Your task to perform on an android device: Go to wifi settings Image 0: 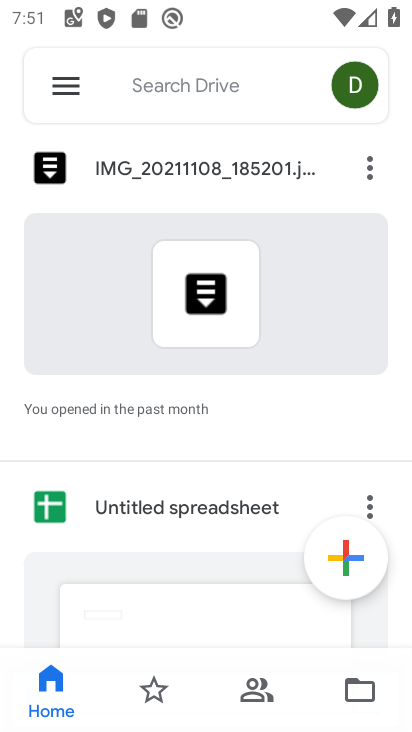
Step 0: press home button
Your task to perform on an android device: Go to wifi settings Image 1: 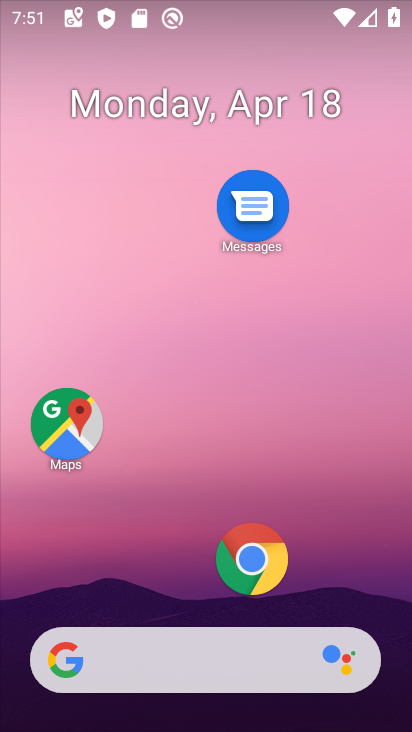
Step 1: drag from (175, 521) to (258, 84)
Your task to perform on an android device: Go to wifi settings Image 2: 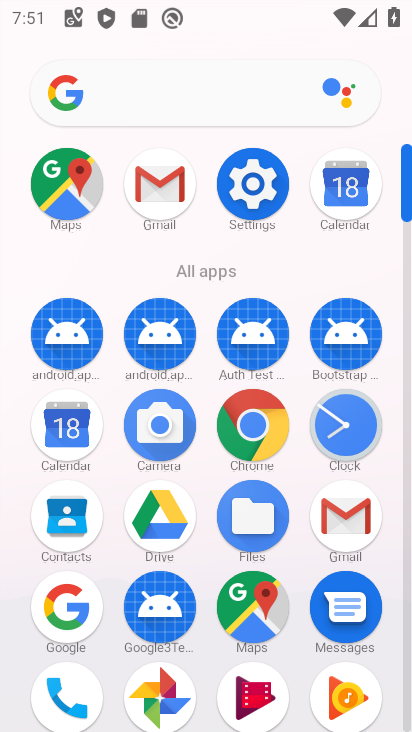
Step 2: click (247, 188)
Your task to perform on an android device: Go to wifi settings Image 3: 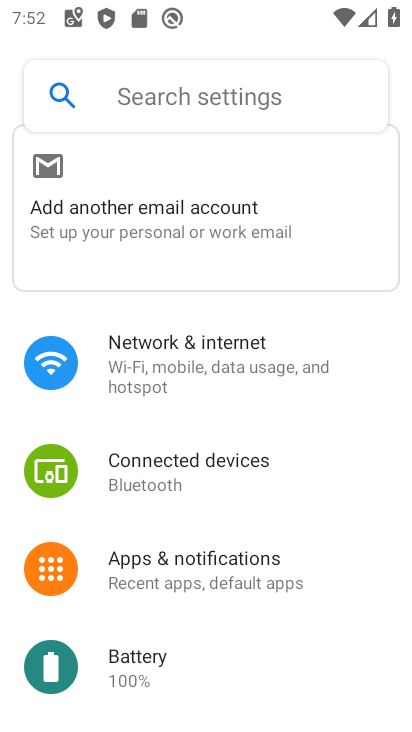
Step 3: click (184, 353)
Your task to perform on an android device: Go to wifi settings Image 4: 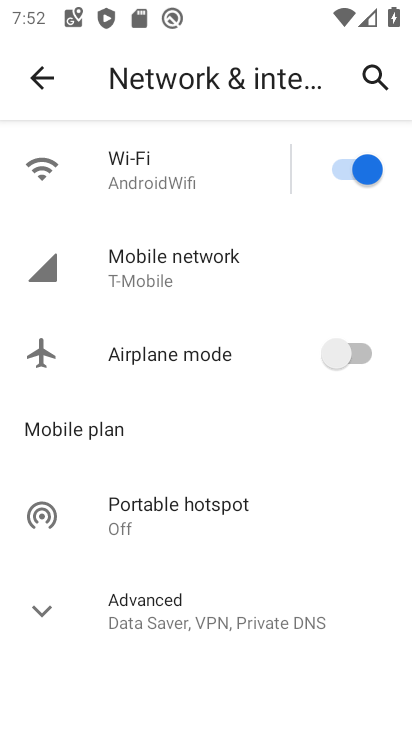
Step 4: click (165, 177)
Your task to perform on an android device: Go to wifi settings Image 5: 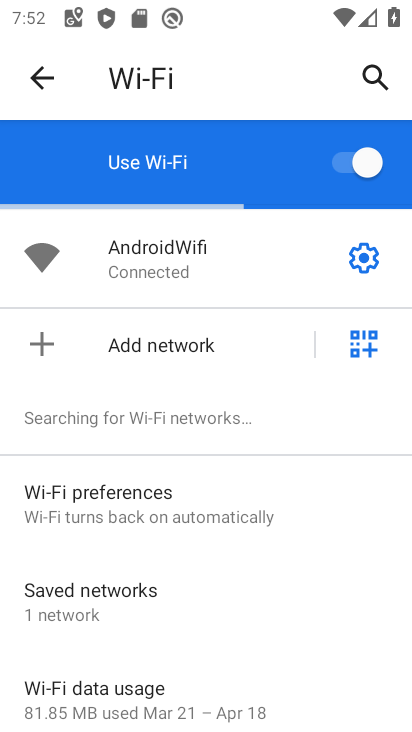
Step 5: task complete